Your task to perform on an android device: Go to Reddit.com Image 0: 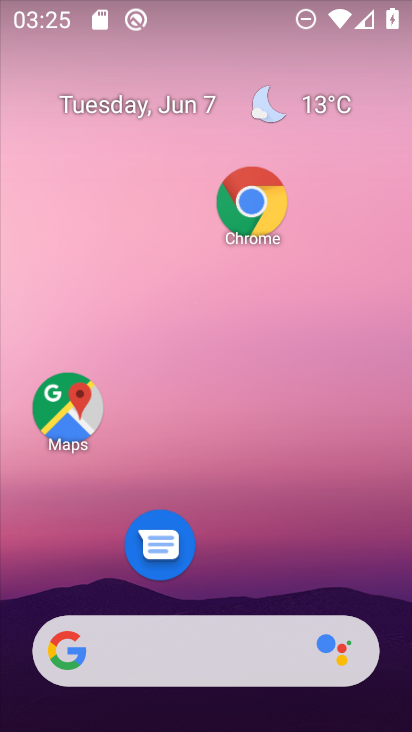
Step 0: click (245, 206)
Your task to perform on an android device: Go to Reddit.com Image 1: 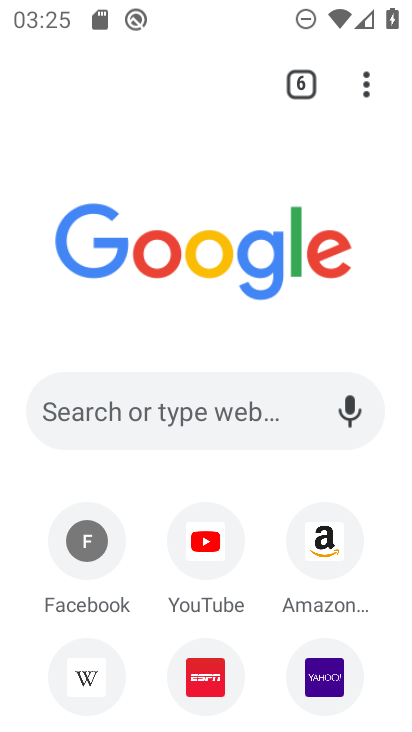
Step 1: click (202, 388)
Your task to perform on an android device: Go to Reddit.com Image 2: 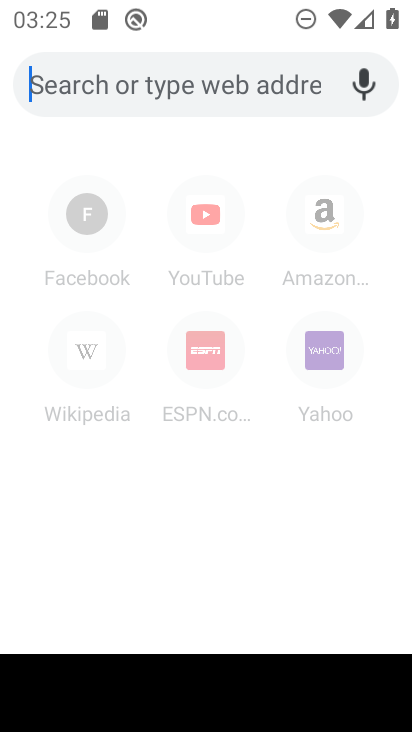
Step 2: type "Reddit.com"
Your task to perform on an android device: Go to Reddit.com Image 3: 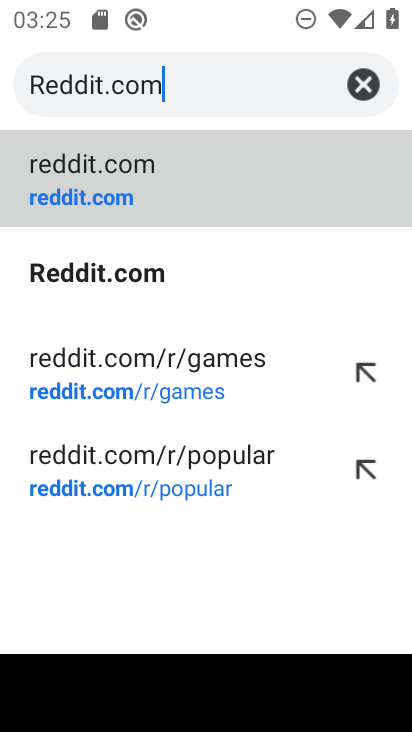
Step 3: click (128, 181)
Your task to perform on an android device: Go to Reddit.com Image 4: 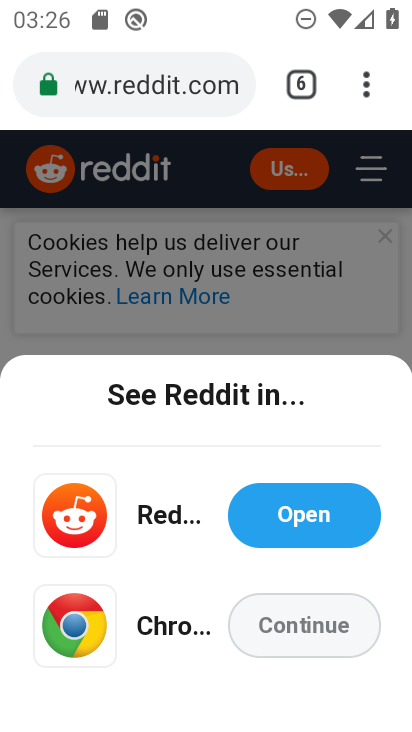
Step 4: task complete